Your task to perform on an android device: delete location history Image 0: 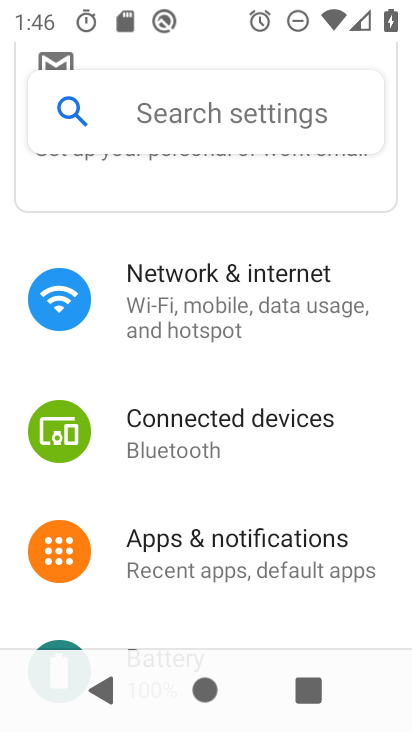
Step 0: drag from (379, 486) to (338, 93)
Your task to perform on an android device: delete location history Image 1: 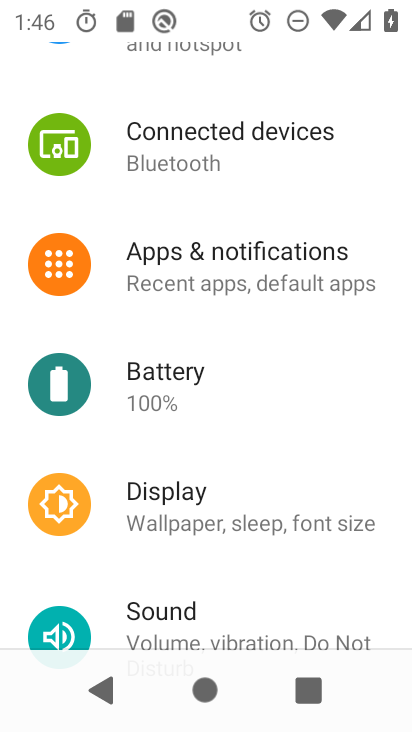
Step 1: drag from (287, 521) to (285, 184)
Your task to perform on an android device: delete location history Image 2: 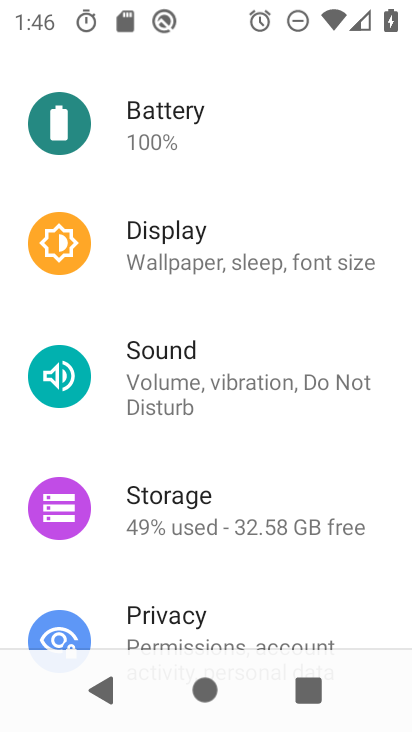
Step 2: drag from (223, 564) to (242, 160)
Your task to perform on an android device: delete location history Image 3: 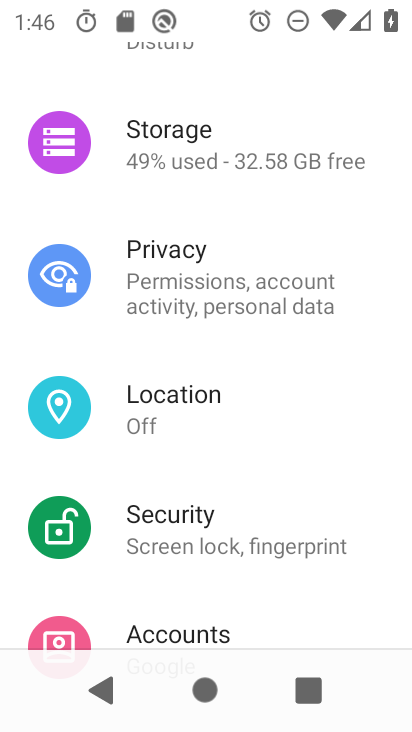
Step 3: click (241, 414)
Your task to perform on an android device: delete location history Image 4: 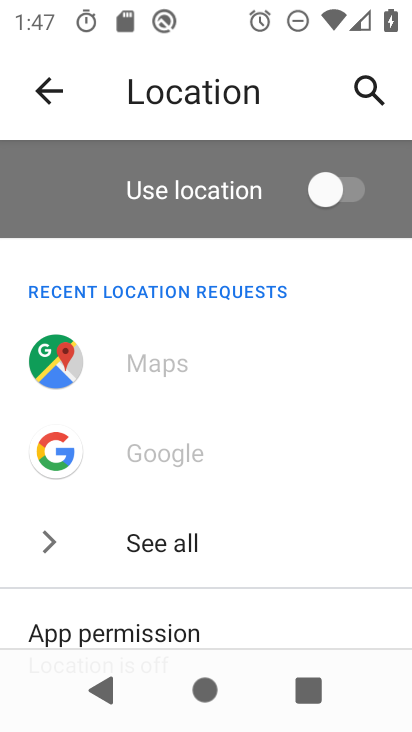
Step 4: drag from (250, 444) to (289, 192)
Your task to perform on an android device: delete location history Image 5: 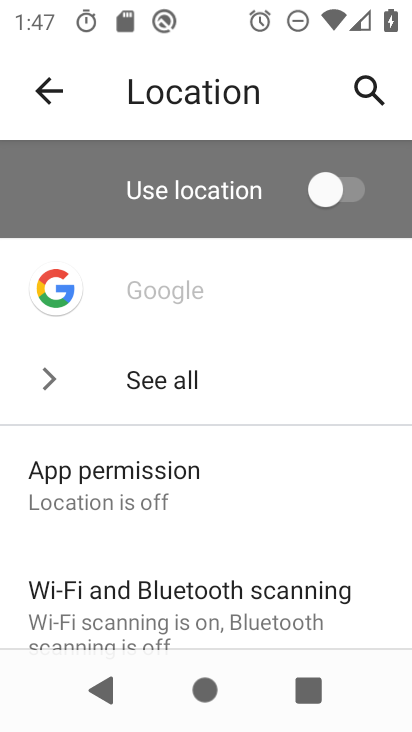
Step 5: drag from (268, 544) to (323, 137)
Your task to perform on an android device: delete location history Image 6: 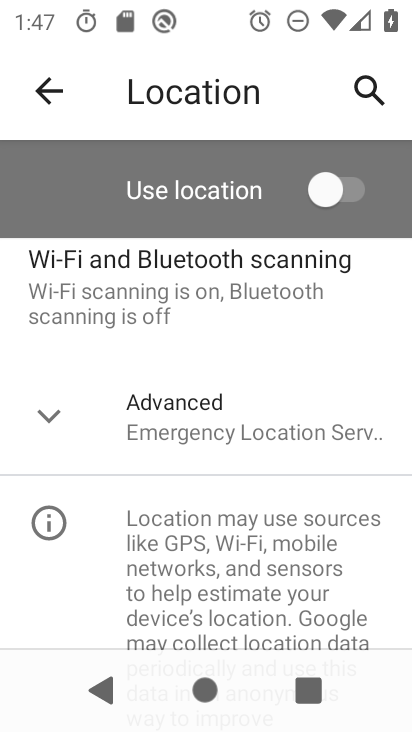
Step 6: drag from (251, 460) to (276, 134)
Your task to perform on an android device: delete location history Image 7: 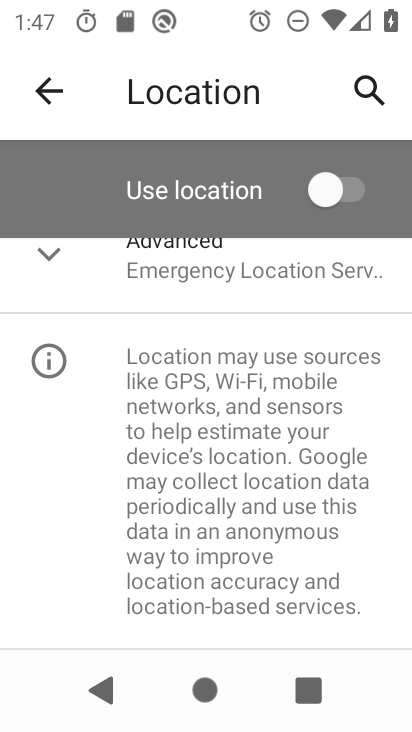
Step 7: drag from (261, 314) to (238, 477)
Your task to perform on an android device: delete location history Image 8: 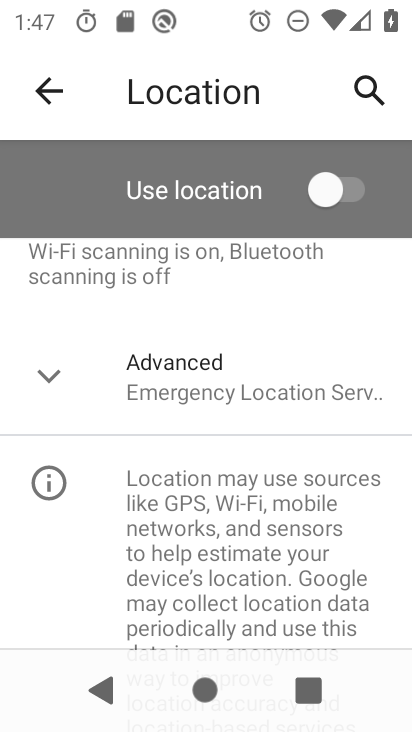
Step 8: click (239, 406)
Your task to perform on an android device: delete location history Image 9: 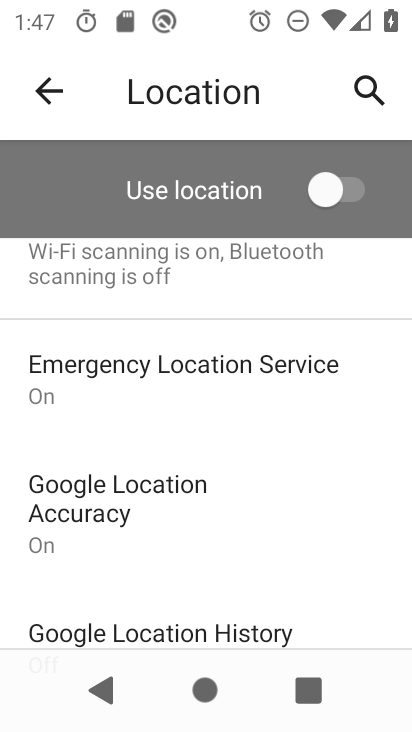
Step 9: drag from (194, 531) to (246, 202)
Your task to perform on an android device: delete location history Image 10: 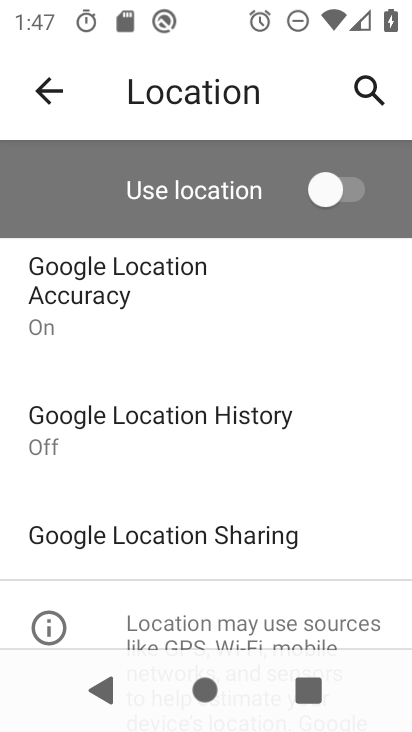
Step 10: click (228, 423)
Your task to perform on an android device: delete location history Image 11: 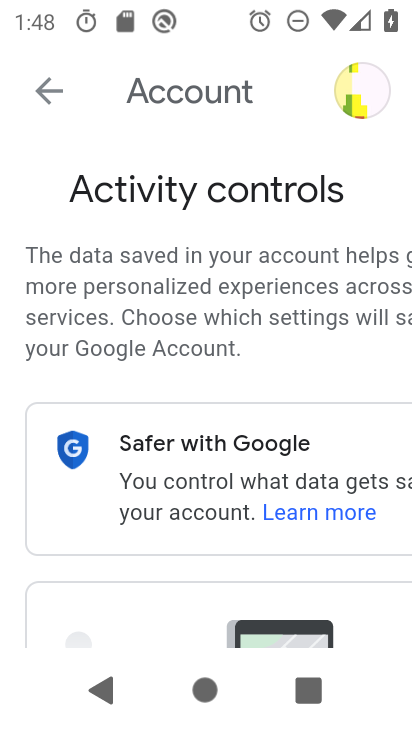
Step 11: drag from (199, 490) to (246, 100)
Your task to perform on an android device: delete location history Image 12: 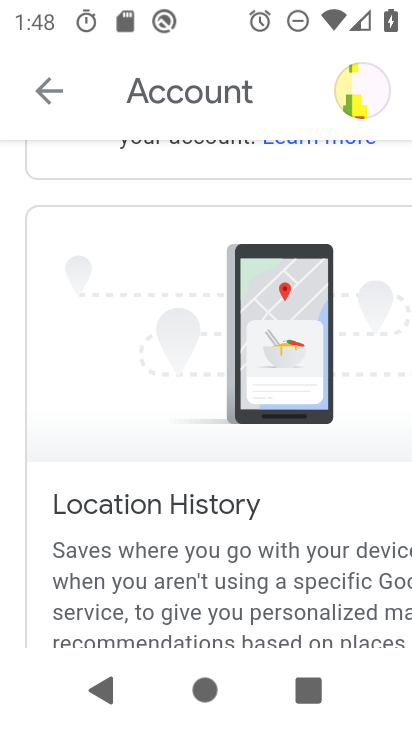
Step 12: drag from (270, 527) to (289, 117)
Your task to perform on an android device: delete location history Image 13: 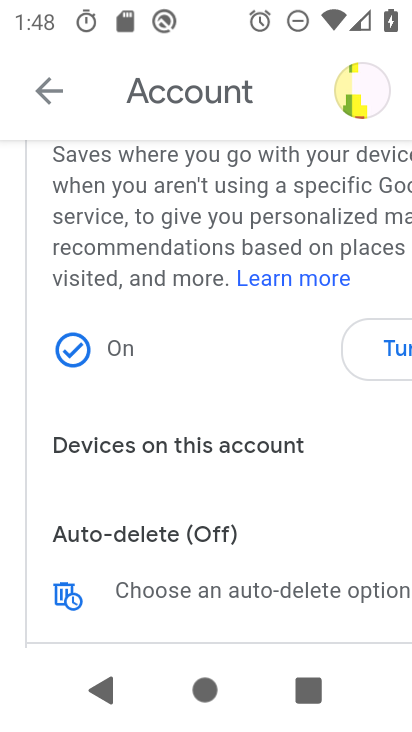
Step 13: drag from (216, 565) to (252, 194)
Your task to perform on an android device: delete location history Image 14: 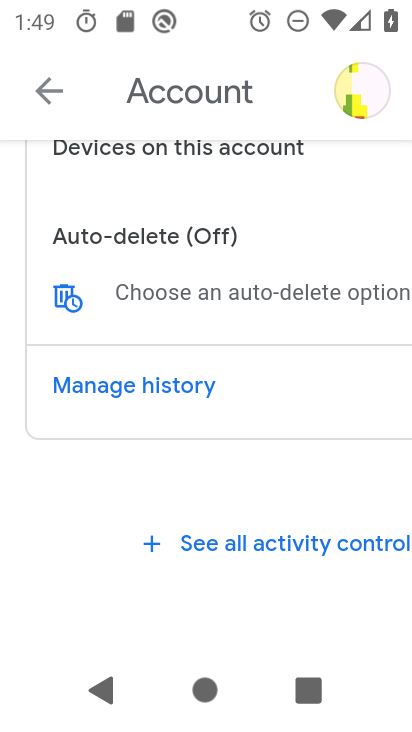
Step 14: click (249, 289)
Your task to perform on an android device: delete location history Image 15: 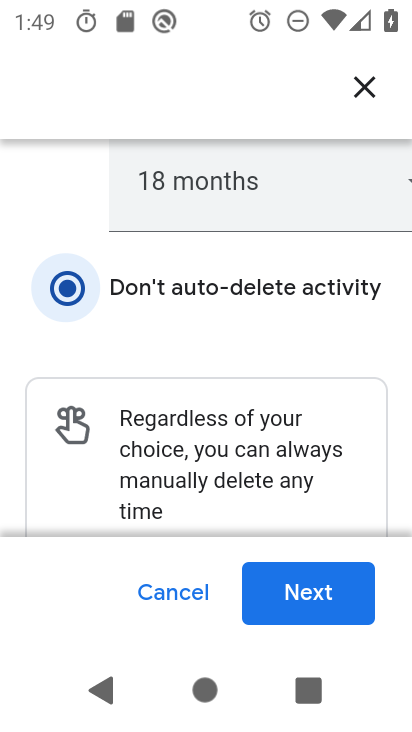
Step 15: click (328, 604)
Your task to perform on an android device: delete location history Image 16: 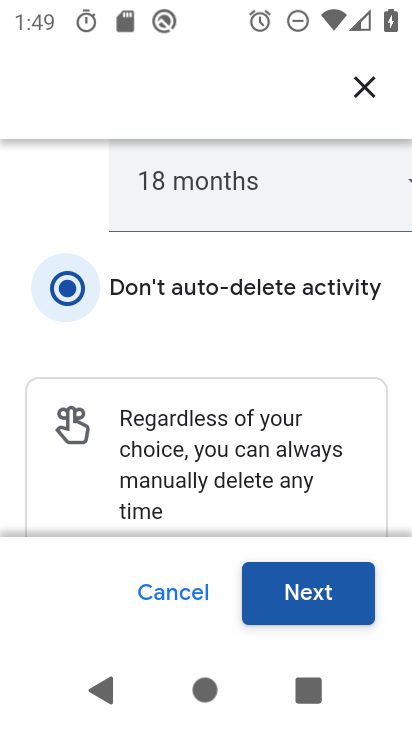
Step 16: click (329, 604)
Your task to perform on an android device: delete location history Image 17: 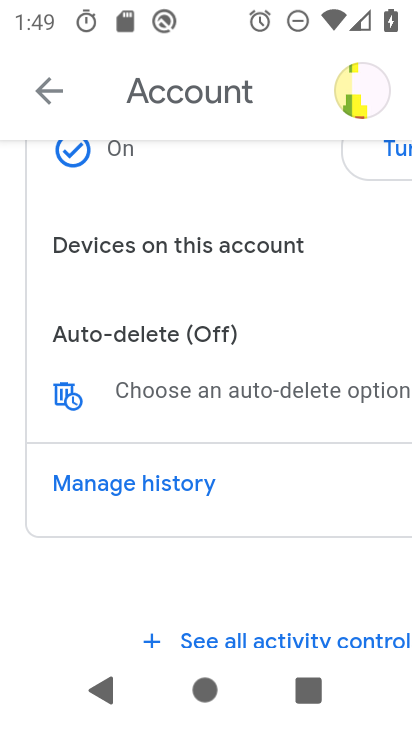
Step 17: task complete